Your task to perform on an android device: check storage Image 0: 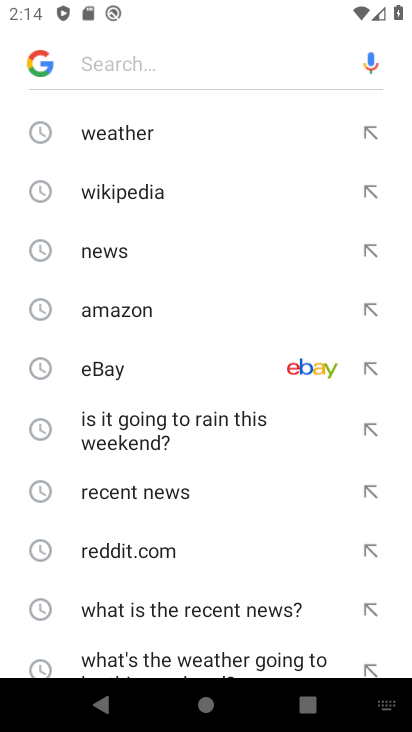
Step 0: press home button
Your task to perform on an android device: check storage Image 1: 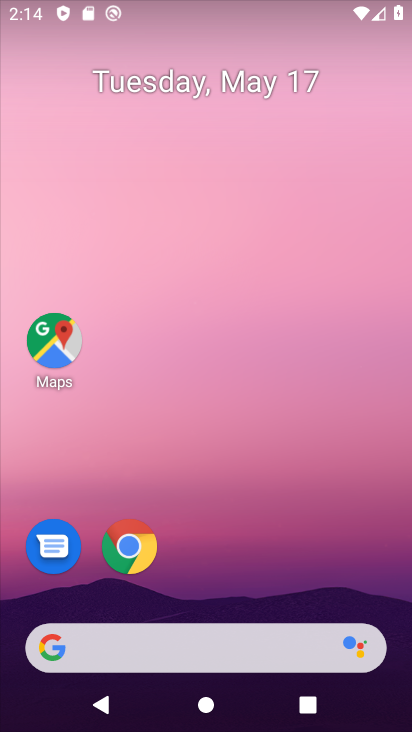
Step 1: drag from (266, 579) to (290, 54)
Your task to perform on an android device: check storage Image 2: 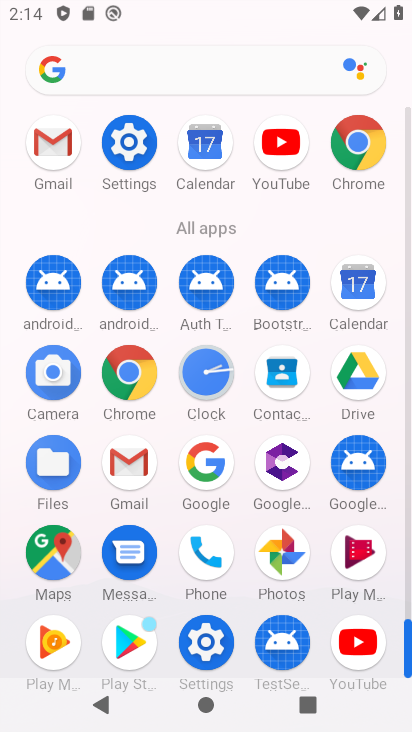
Step 2: click (131, 155)
Your task to perform on an android device: check storage Image 3: 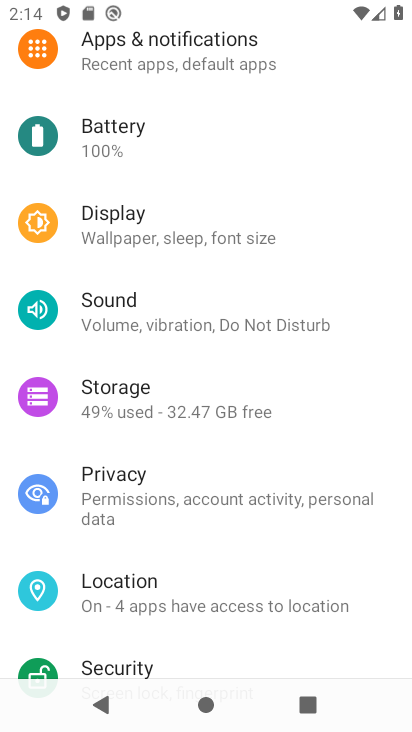
Step 3: click (213, 392)
Your task to perform on an android device: check storage Image 4: 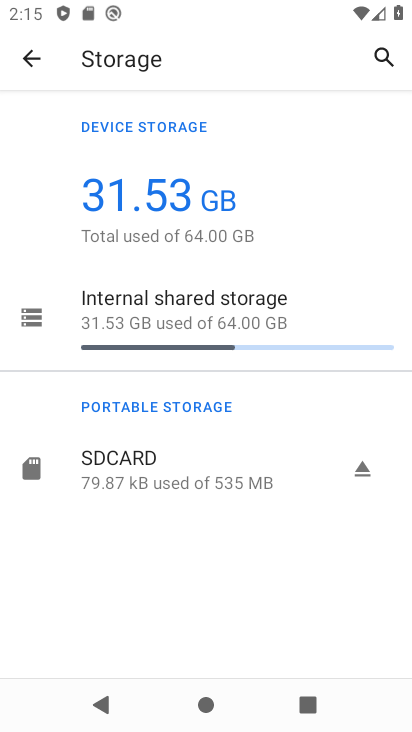
Step 4: click (235, 316)
Your task to perform on an android device: check storage Image 5: 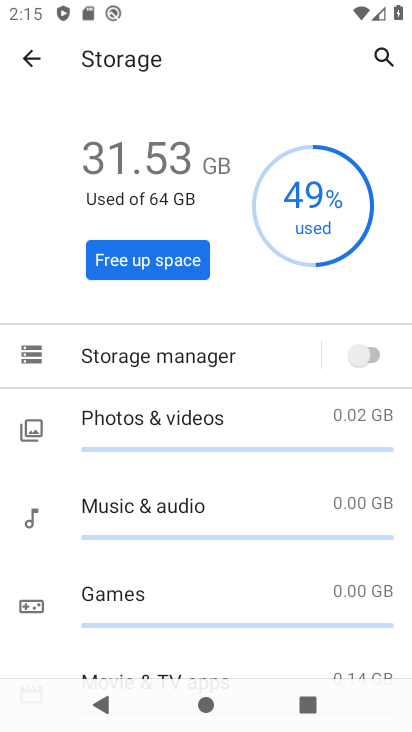
Step 5: task complete